Your task to perform on an android device: toggle sleep mode Image 0: 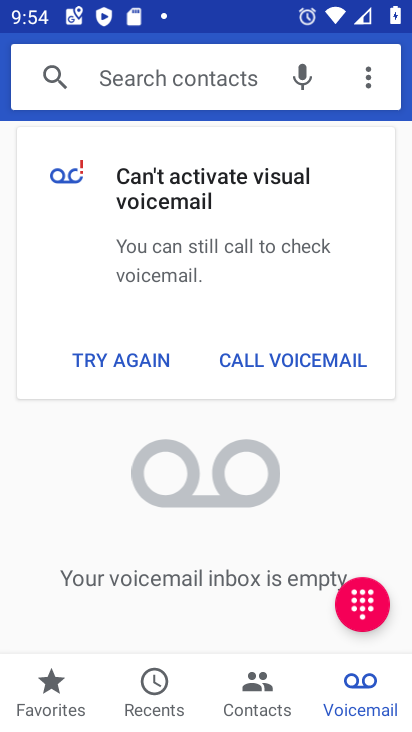
Step 0: press home button
Your task to perform on an android device: toggle sleep mode Image 1: 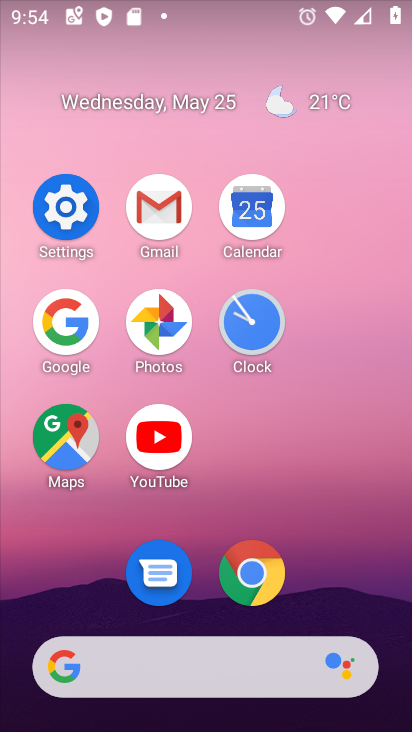
Step 1: click (64, 226)
Your task to perform on an android device: toggle sleep mode Image 2: 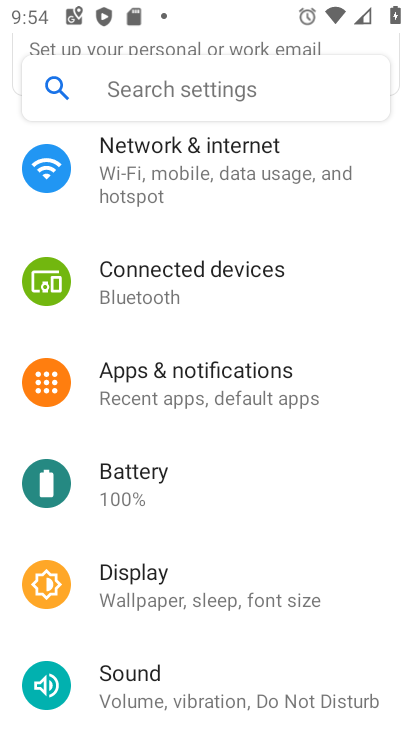
Step 2: click (210, 593)
Your task to perform on an android device: toggle sleep mode Image 3: 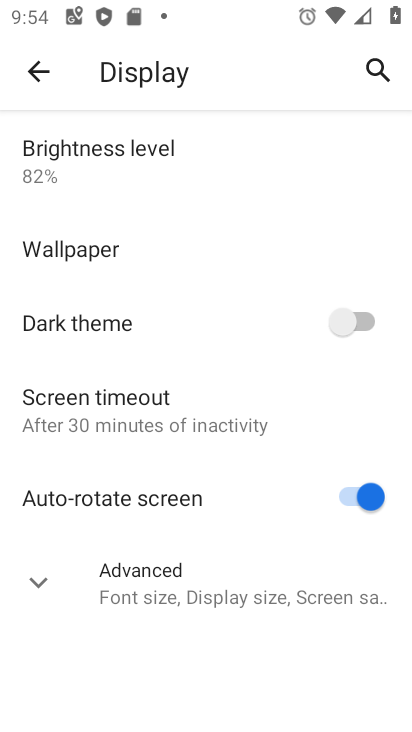
Step 3: click (219, 445)
Your task to perform on an android device: toggle sleep mode Image 4: 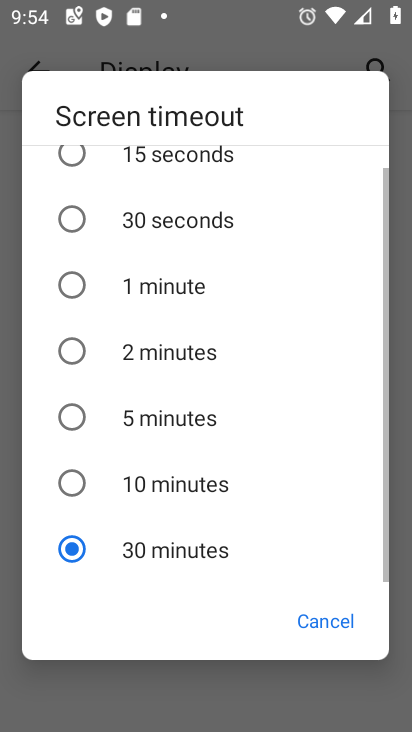
Step 4: click (136, 297)
Your task to perform on an android device: toggle sleep mode Image 5: 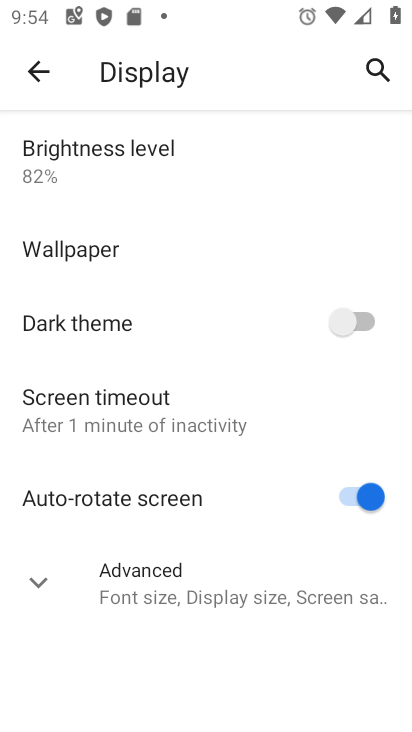
Step 5: task complete